Your task to perform on an android device: Open location settings Image 0: 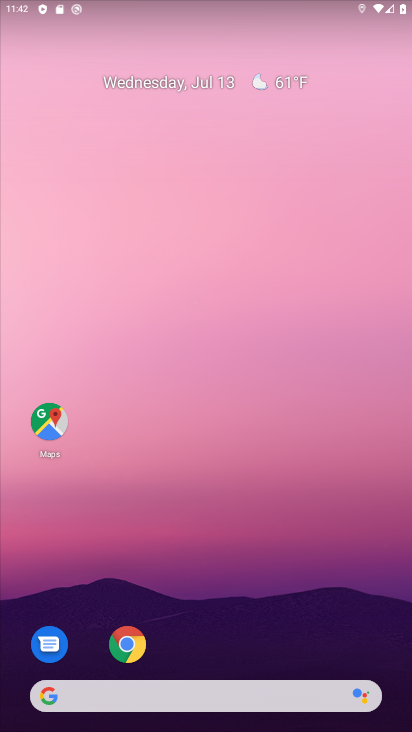
Step 0: drag from (230, 562) to (277, 128)
Your task to perform on an android device: Open location settings Image 1: 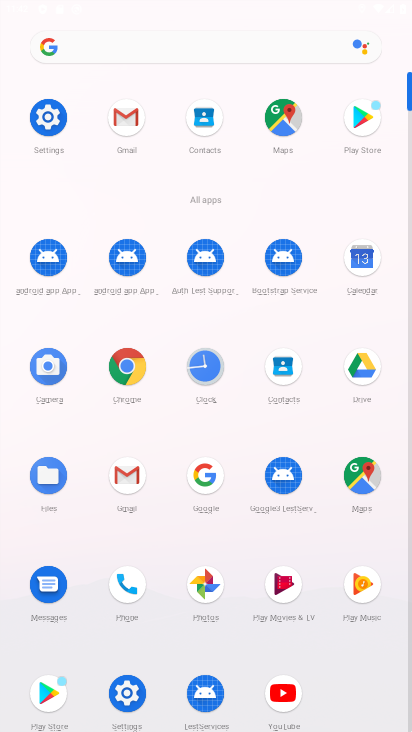
Step 1: click (135, 696)
Your task to perform on an android device: Open location settings Image 2: 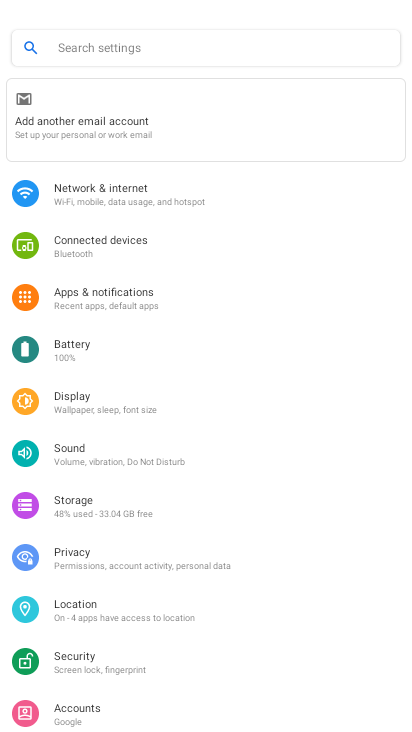
Step 2: click (166, 611)
Your task to perform on an android device: Open location settings Image 3: 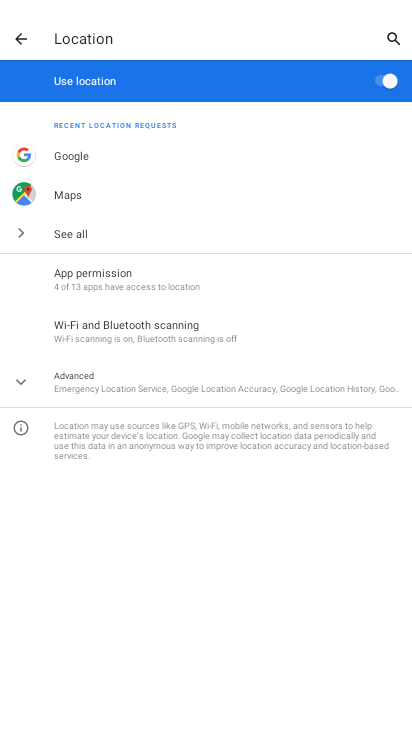
Step 3: task complete